Your task to perform on an android device: Open Wikipedia Image 0: 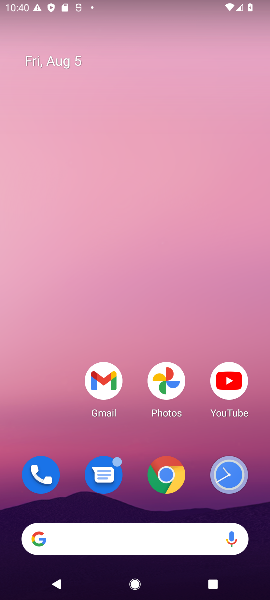
Step 0: click (173, 466)
Your task to perform on an android device: Open Wikipedia Image 1: 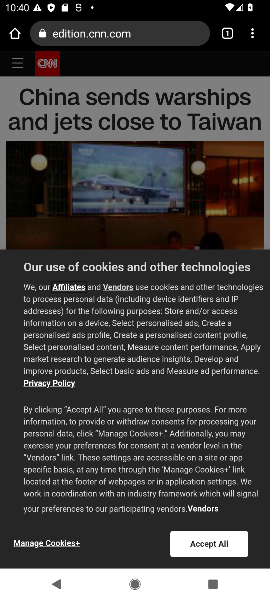
Step 1: click (155, 28)
Your task to perform on an android device: Open Wikipedia Image 2: 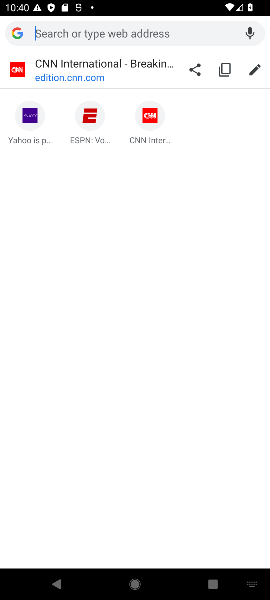
Step 2: type "wikipedia"
Your task to perform on an android device: Open Wikipedia Image 3: 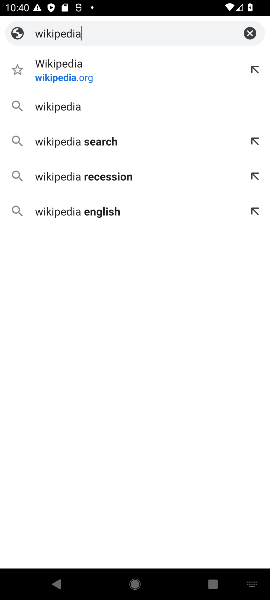
Step 3: click (75, 70)
Your task to perform on an android device: Open Wikipedia Image 4: 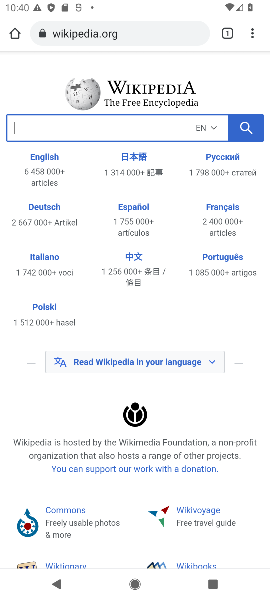
Step 4: task complete